Your task to perform on an android device: Go to Reddit.com Image 0: 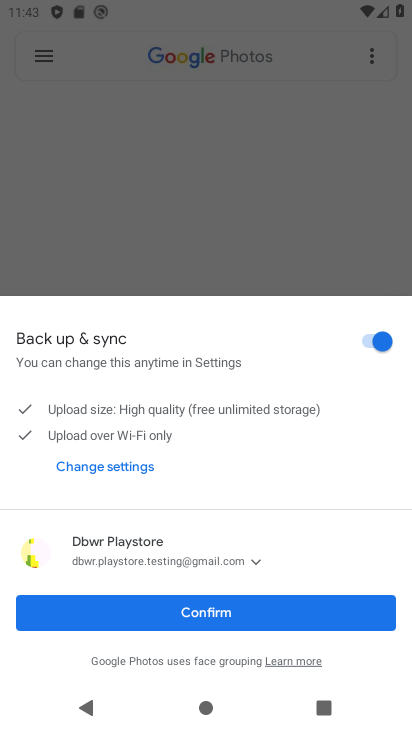
Step 0: press home button
Your task to perform on an android device: Go to Reddit.com Image 1: 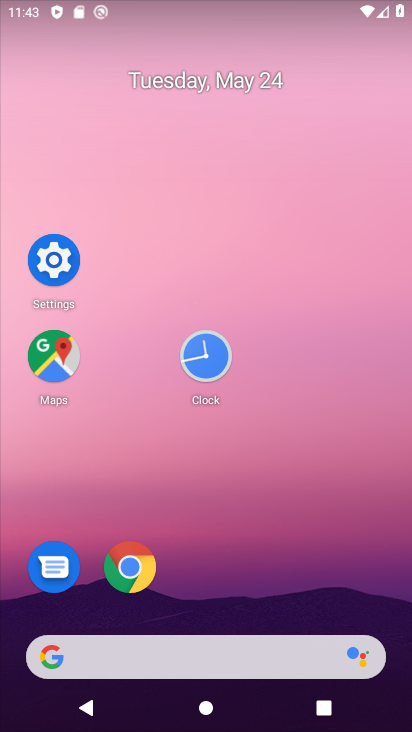
Step 1: click (154, 561)
Your task to perform on an android device: Go to Reddit.com Image 2: 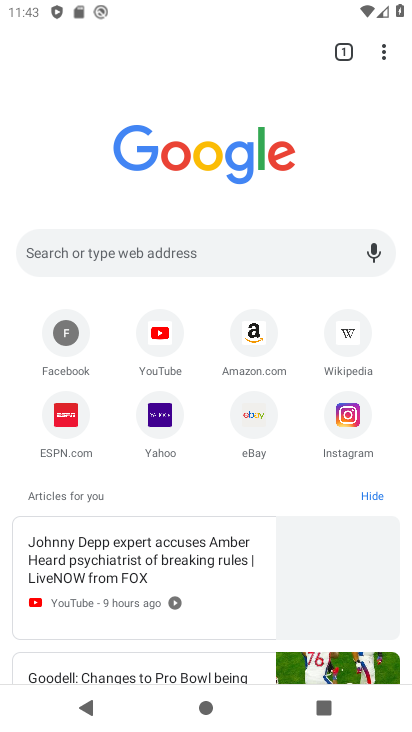
Step 2: click (312, 244)
Your task to perform on an android device: Go to Reddit.com Image 3: 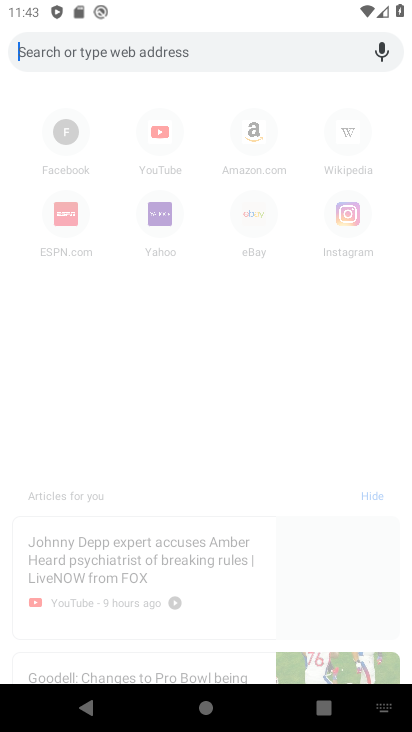
Step 3: type "reddit"
Your task to perform on an android device: Go to Reddit.com Image 4: 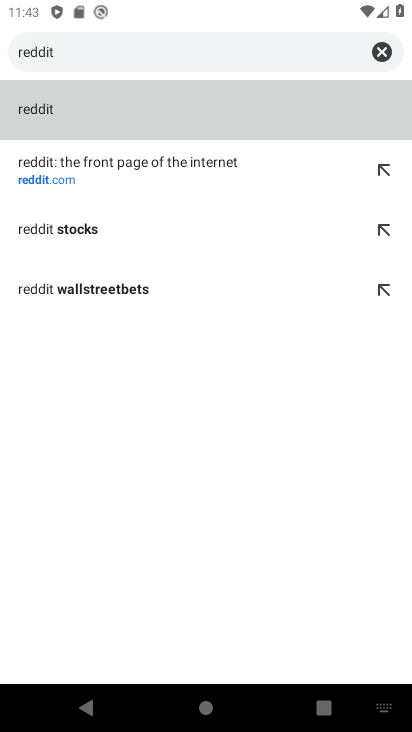
Step 4: click (96, 181)
Your task to perform on an android device: Go to Reddit.com Image 5: 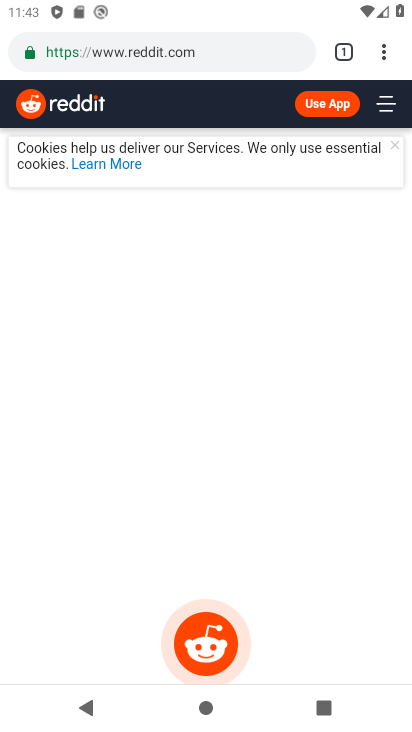
Step 5: task complete